Your task to perform on an android device: find snoozed emails in the gmail app Image 0: 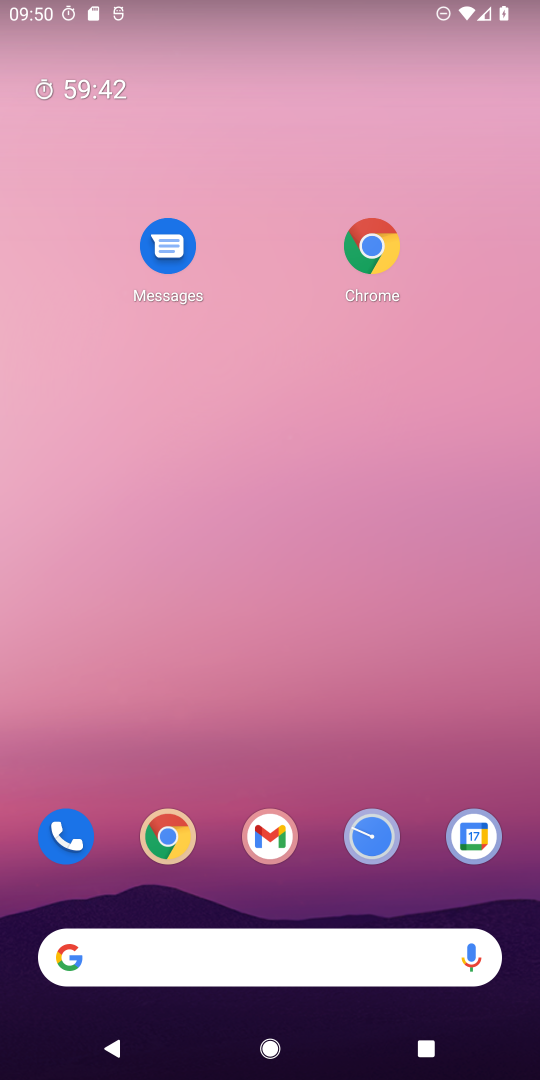
Step 0: drag from (130, 816) to (163, 153)
Your task to perform on an android device: find snoozed emails in the gmail app Image 1: 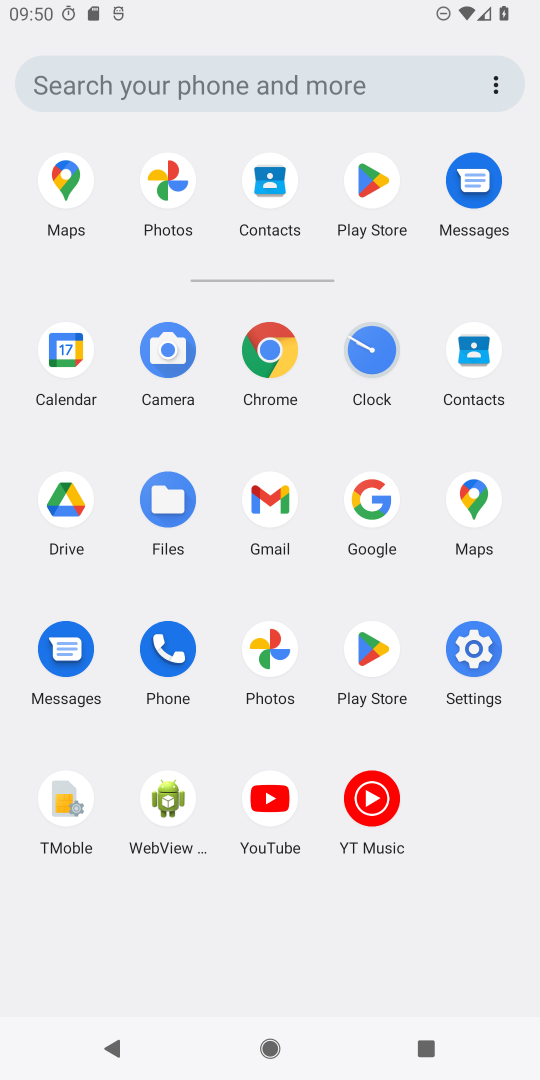
Step 1: click (264, 484)
Your task to perform on an android device: find snoozed emails in the gmail app Image 2: 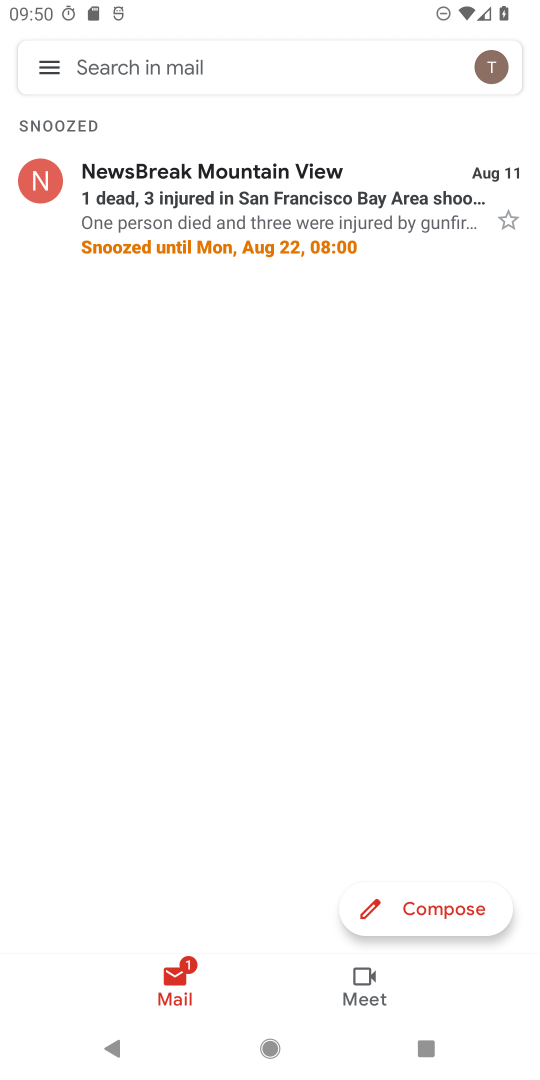
Step 2: click (58, 68)
Your task to perform on an android device: find snoozed emails in the gmail app Image 3: 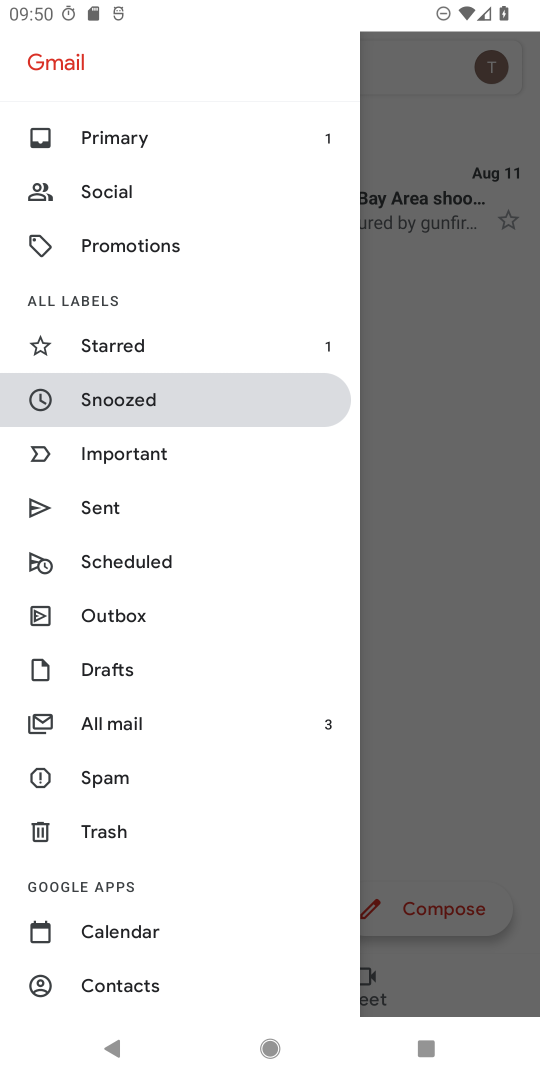
Step 3: click (174, 399)
Your task to perform on an android device: find snoozed emails in the gmail app Image 4: 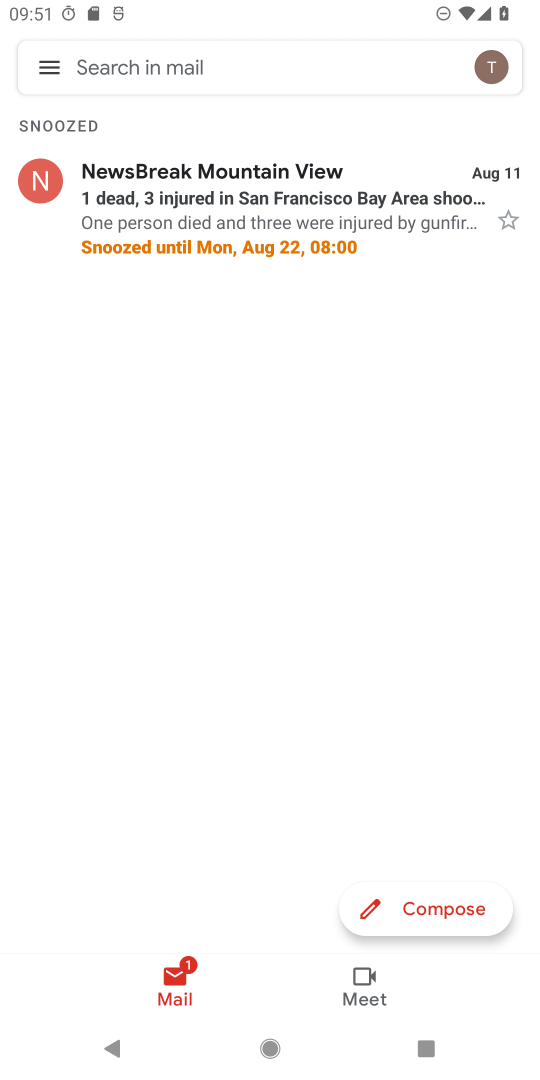
Step 4: task complete